Your task to perform on an android device: Open the calendar app, open the side menu, and click the "Day" option Image 0: 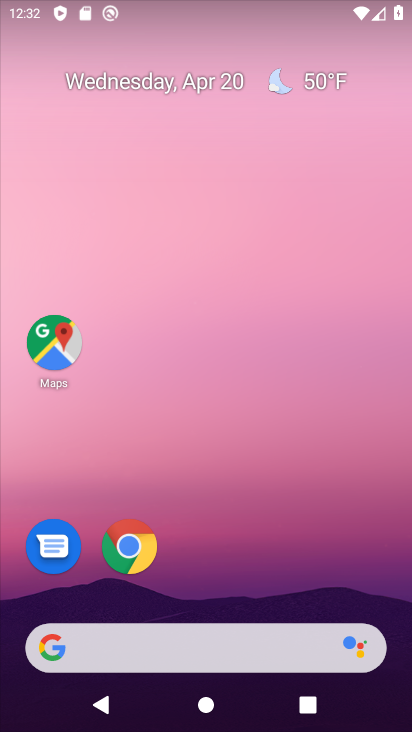
Step 0: drag from (252, 583) to (274, 98)
Your task to perform on an android device: Open the calendar app, open the side menu, and click the "Day" option Image 1: 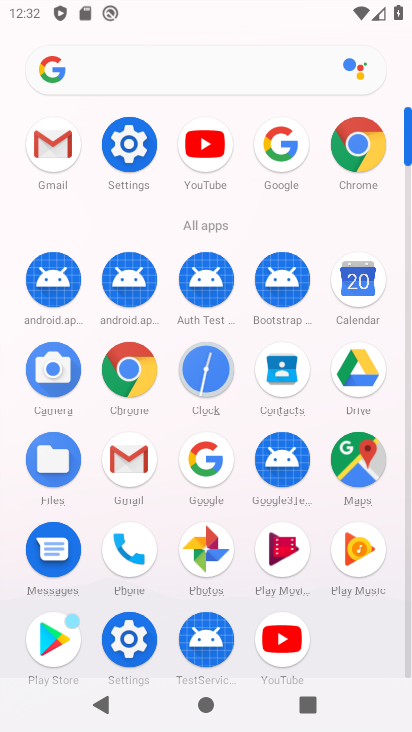
Step 1: click (356, 270)
Your task to perform on an android device: Open the calendar app, open the side menu, and click the "Day" option Image 2: 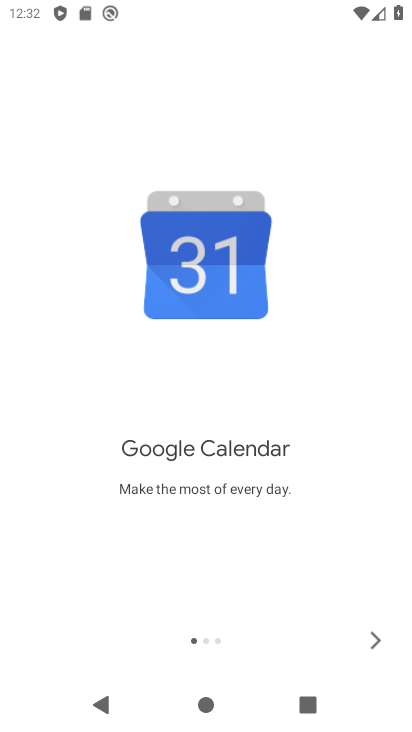
Step 2: click (377, 641)
Your task to perform on an android device: Open the calendar app, open the side menu, and click the "Day" option Image 3: 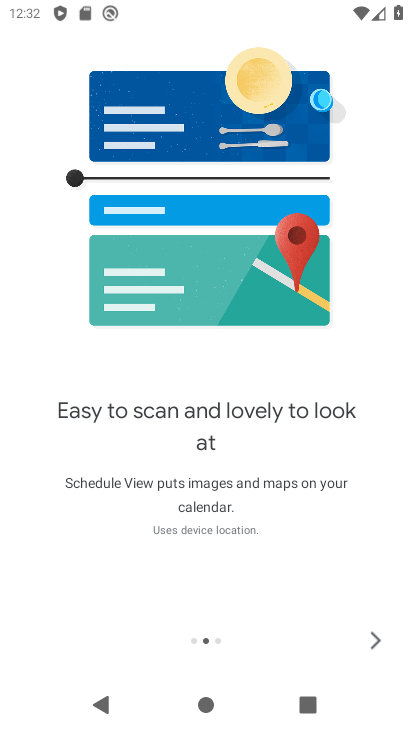
Step 3: click (380, 639)
Your task to perform on an android device: Open the calendar app, open the side menu, and click the "Day" option Image 4: 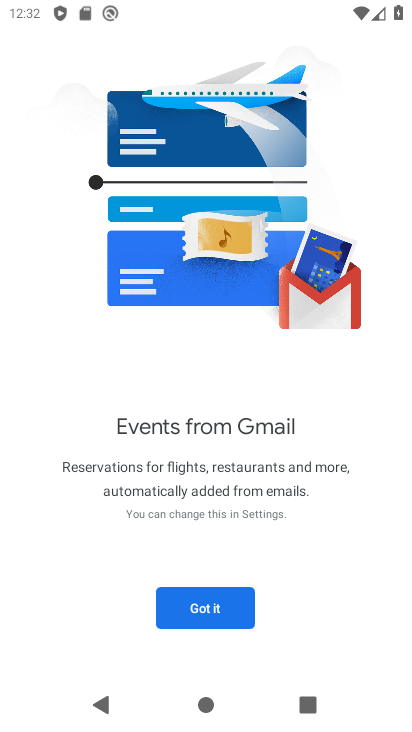
Step 4: click (225, 591)
Your task to perform on an android device: Open the calendar app, open the side menu, and click the "Day" option Image 5: 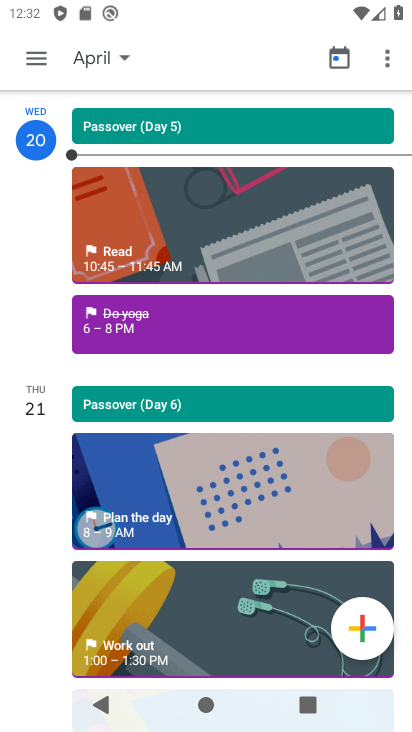
Step 5: click (34, 50)
Your task to perform on an android device: Open the calendar app, open the side menu, and click the "Day" option Image 6: 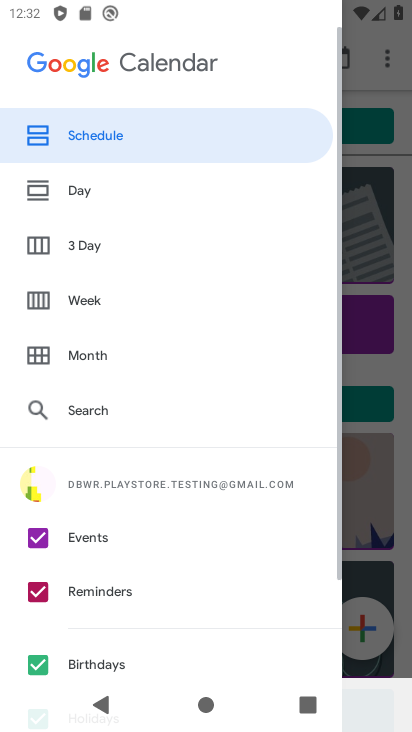
Step 6: click (91, 207)
Your task to perform on an android device: Open the calendar app, open the side menu, and click the "Day" option Image 7: 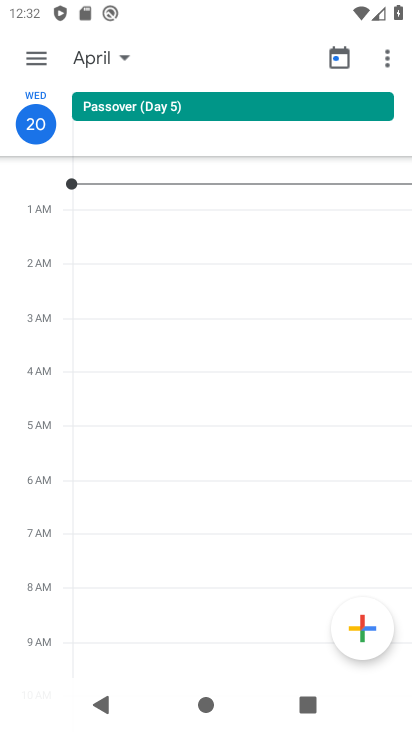
Step 7: task complete